Your task to perform on an android device: set an alarm Image 0: 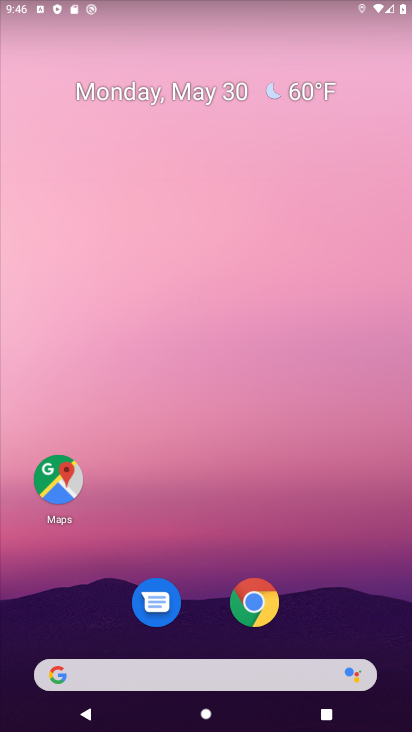
Step 0: drag from (197, 639) to (217, 338)
Your task to perform on an android device: set an alarm Image 1: 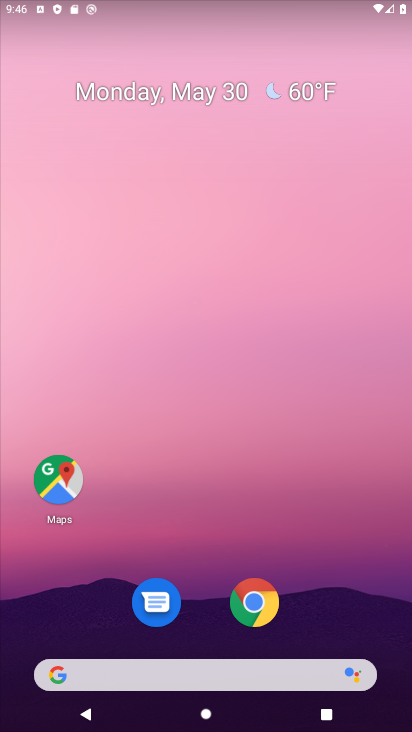
Step 1: drag from (198, 627) to (195, 298)
Your task to perform on an android device: set an alarm Image 2: 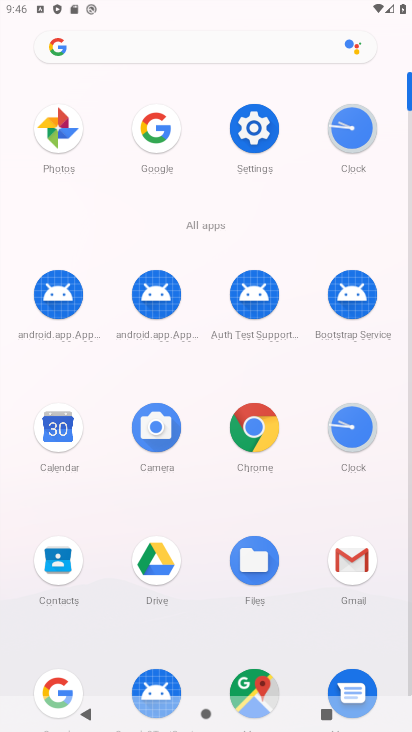
Step 2: click (345, 441)
Your task to perform on an android device: set an alarm Image 3: 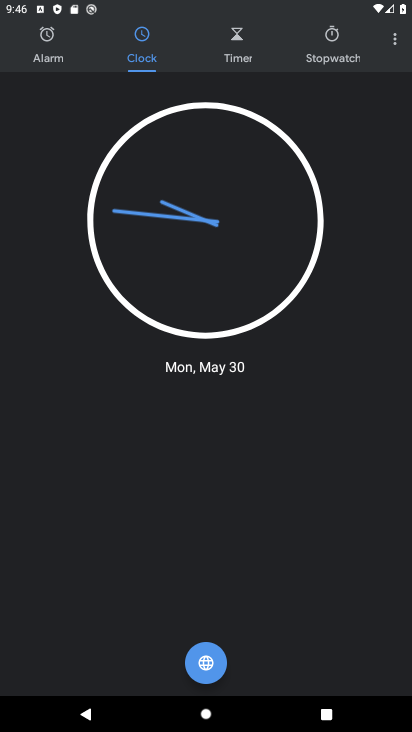
Step 3: click (51, 45)
Your task to perform on an android device: set an alarm Image 4: 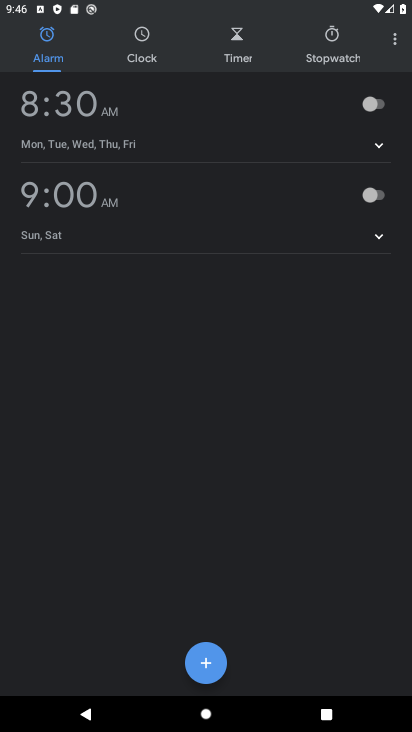
Step 4: click (384, 96)
Your task to perform on an android device: set an alarm Image 5: 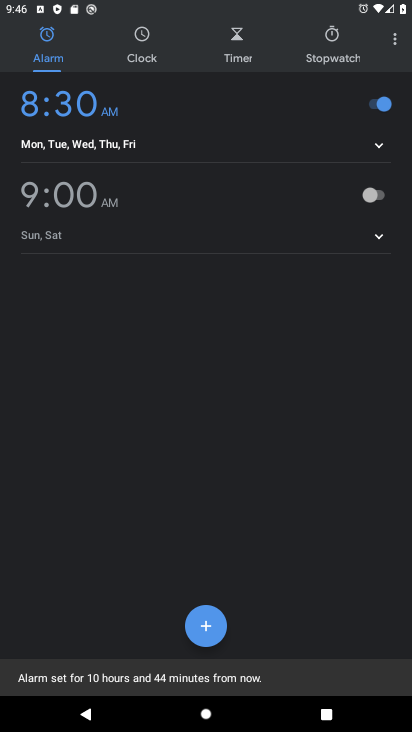
Step 5: task complete